Your task to perform on an android device: move an email to a new category in the gmail app Image 0: 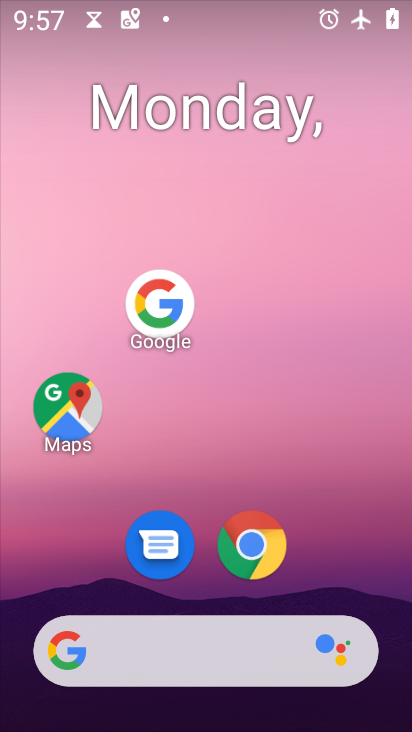
Step 0: press home button
Your task to perform on an android device: move an email to a new category in the gmail app Image 1: 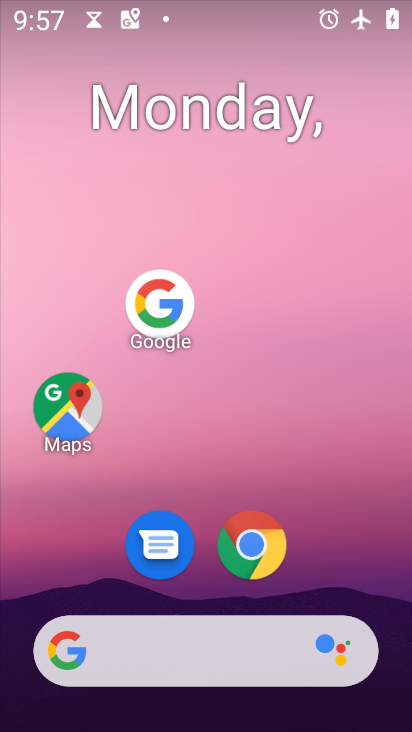
Step 1: drag from (174, 664) to (339, 87)
Your task to perform on an android device: move an email to a new category in the gmail app Image 2: 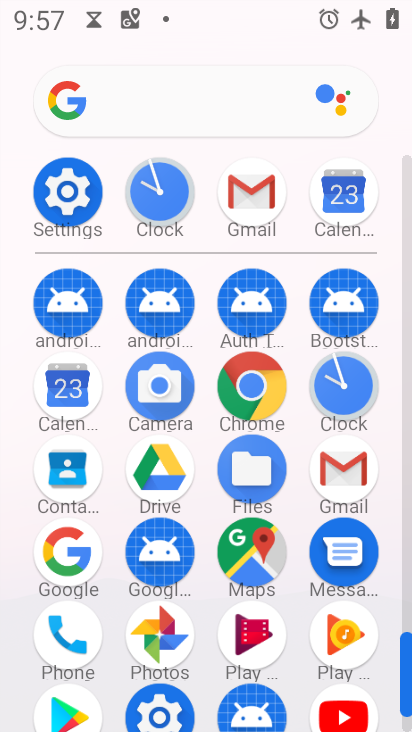
Step 2: click (253, 207)
Your task to perform on an android device: move an email to a new category in the gmail app Image 3: 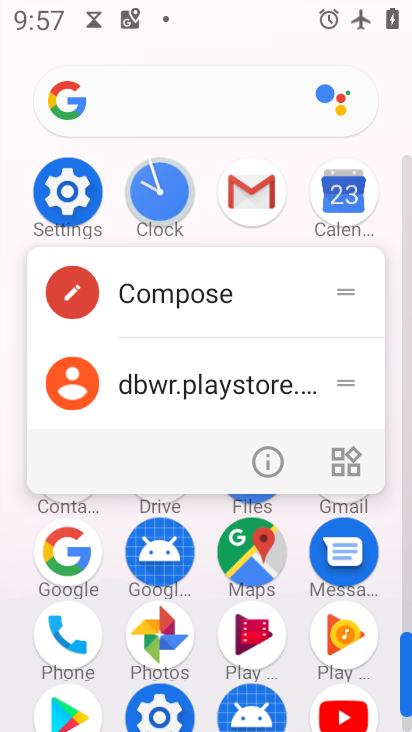
Step 3: click (245, 190)
Your task to perform on an android device: move an email to a new category in the gmail app Image 4: 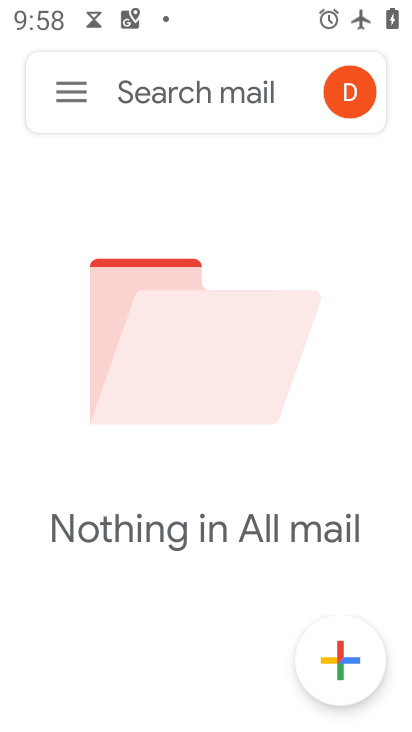
Step 4: task complete